Your task to perform on an android device: read, delete, or share a saved page in the chrome app Image 0: 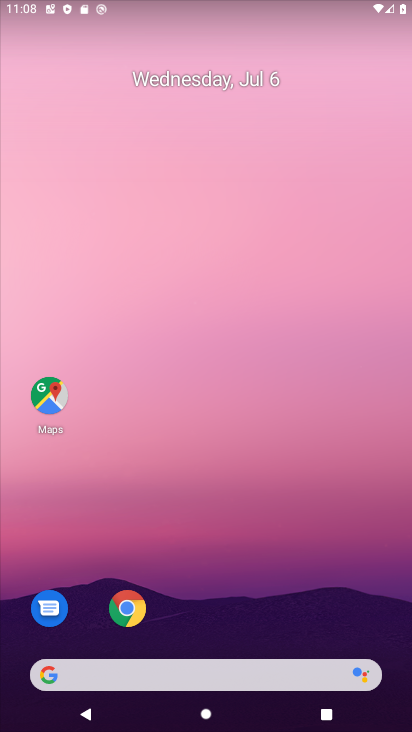
Step 0: drag from (177, 673) to (230, 216)
Your task to perform on an android device: read, delete, or share a saved page in the chrome app Image 1: 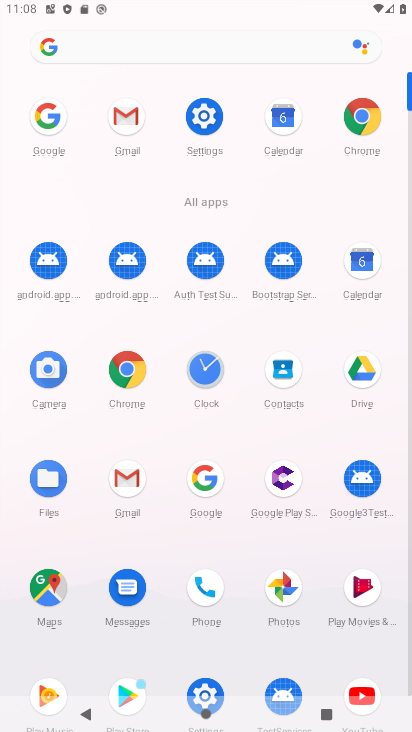
Step 1: click (362, 120)
Your task to perform on an android device: read, delete, or share a saved page in the chrome app Image 2: 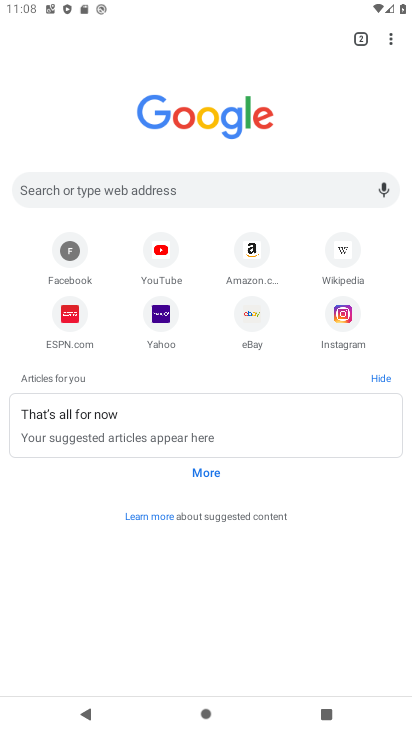
Step 2: click (388, 37)
Your task to perform on an android device: read, delete, or share a saved page in the chrome app Image 3: 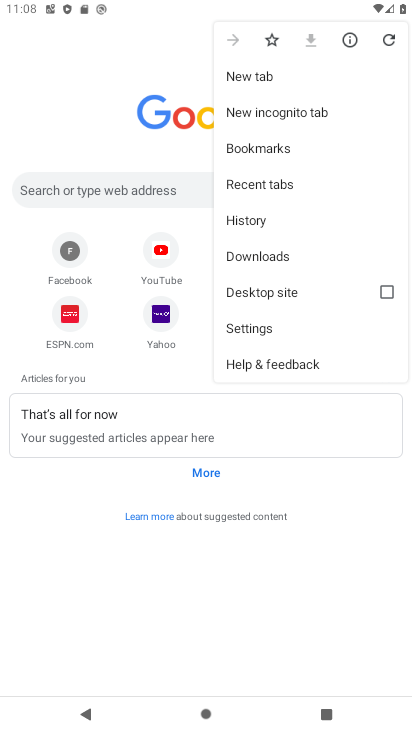
Step 3: click (243, 258)
Your task to perform on an android device: read, delete, or share a saved page in the chrome app Image 4: 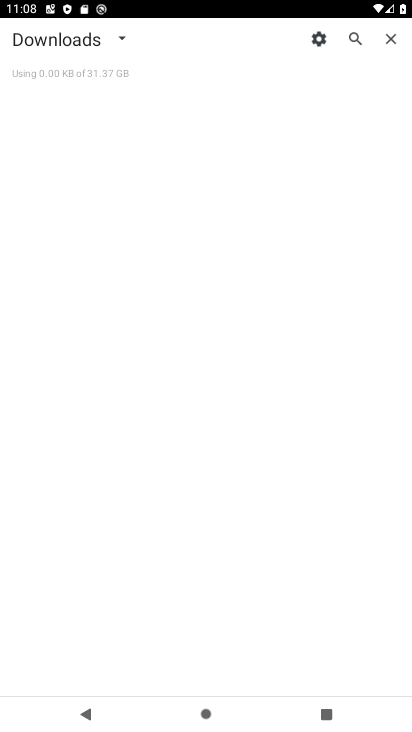
Step 4: click (112, 38)
Your task to perform on an android device: read, delete, or share a saved page in the chrome app Image 5: 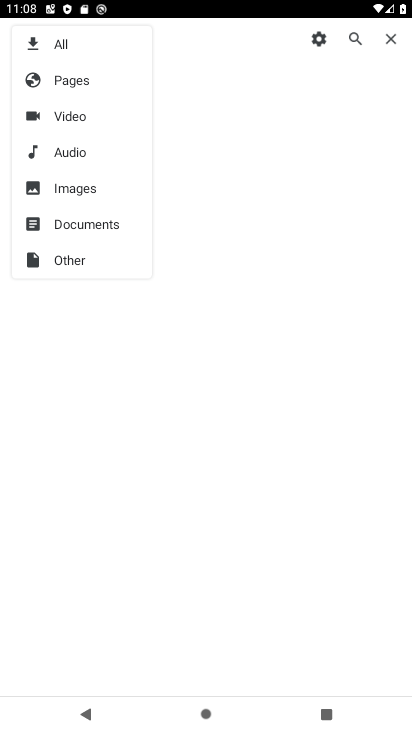
Step 5: click (84, 81)
Your task to perform on an android device: read, delete, or share a saved page in the chrome app Image 6: 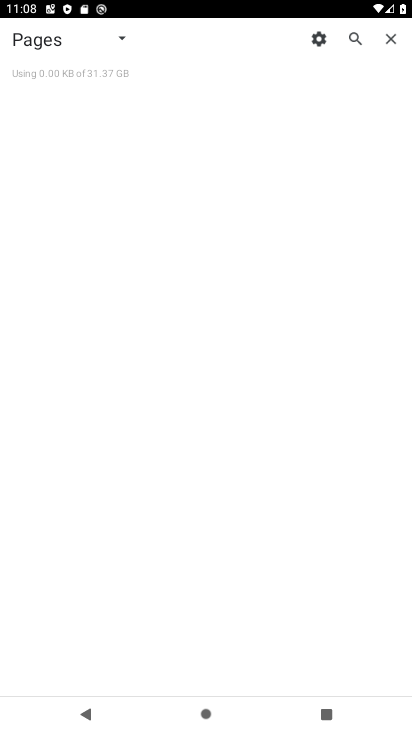
Step 6: task complete